Your task to perform on an android device: Play the last video I watched on Youtube Image 0: 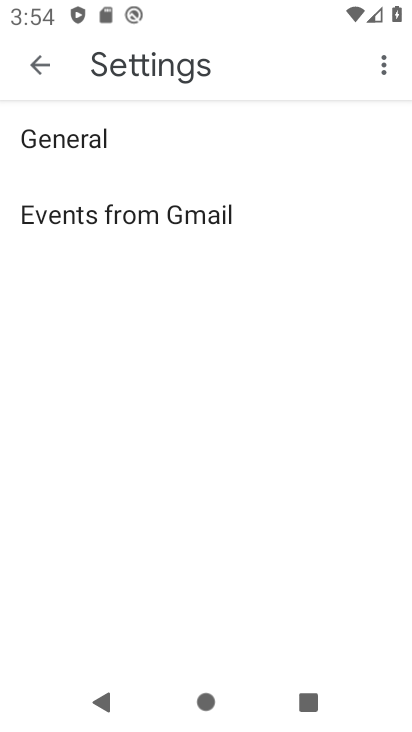
Step 0: press home button
Your task to perform on an android device: Play the last video I watched on Youtube Image 1: 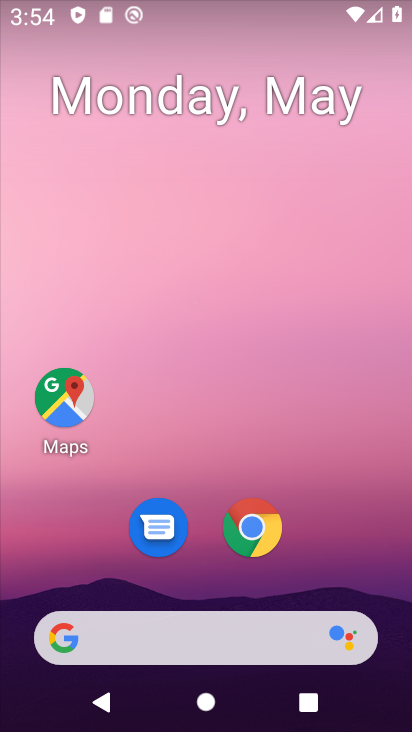
Step 1: drag from (222, 586) to (257, 80)
Your task to perform on an android device: Play the last video I watched on Youtube Image 2: 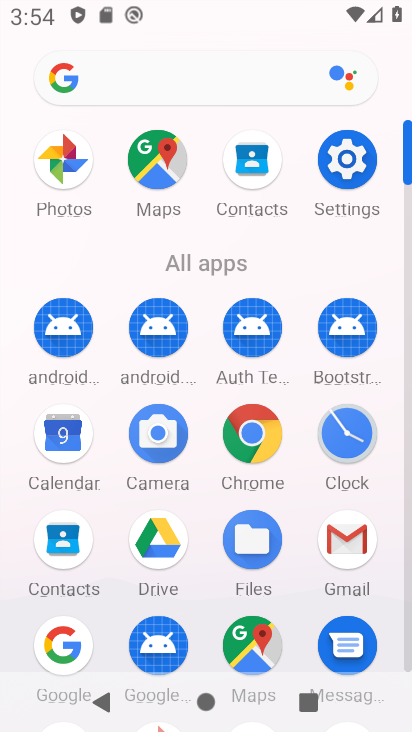
Step 2: drag from (208, 651) to (230, 101)
Your task to perform on an android device: Play the last video I watched on Youtube Image 3: 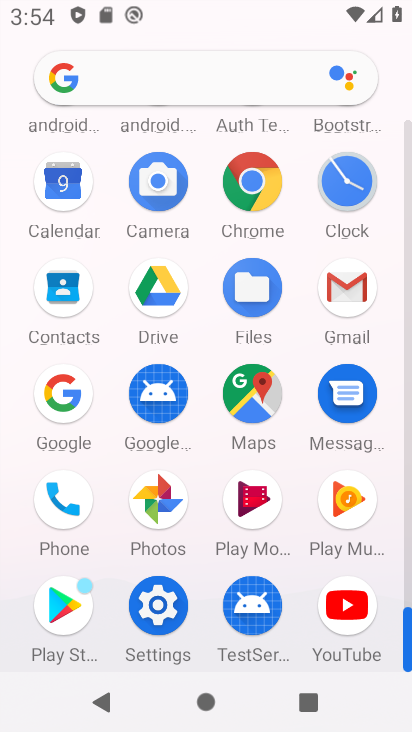
Step 3: click (336, 608)
Your task to perform on an android device: Play the last video I watched on Youtube Image 4: 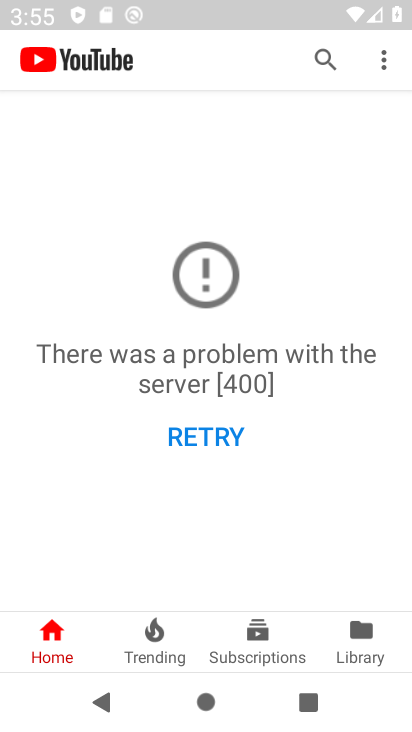
Step 4: click (363, 651)
Your task to perform on an android device: Play the last video I watched on Youtube Image 5: 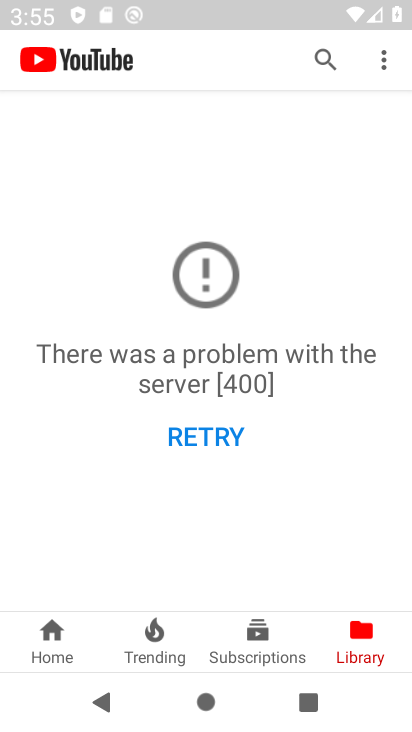
Step 5: task complete